Your task to perform on an android device: turn off priority inbox in the gmail app Image 0: 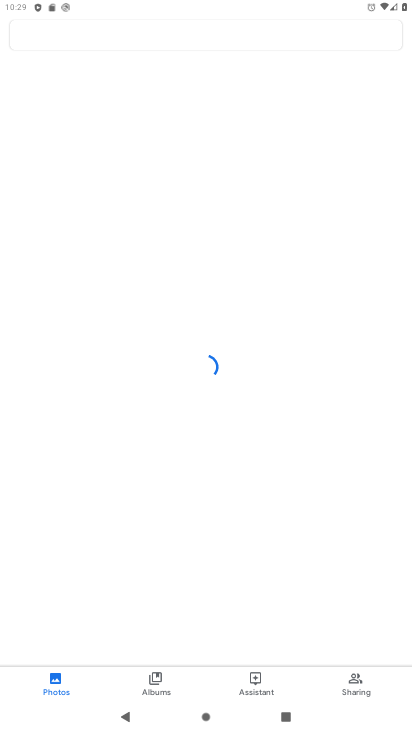
Step 0: press home button
Your task to perform on an android device: turn off priority inbox in the gmail app Image 1: 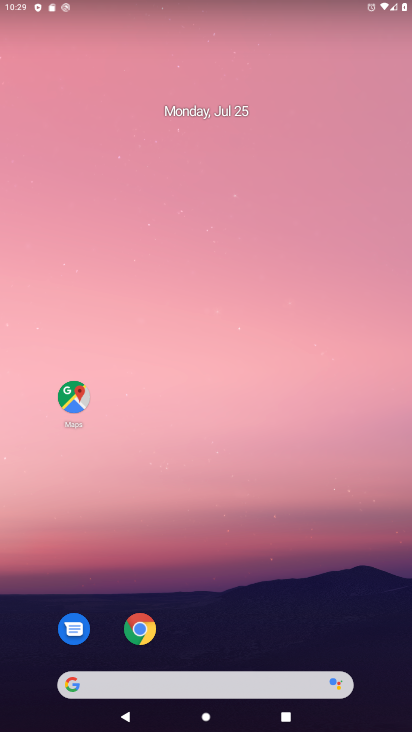
Step 1: drag from (271, 636) to (277, 154)
Your task to perform on an android device: turn off priority inbox in the gmail app Image 2: 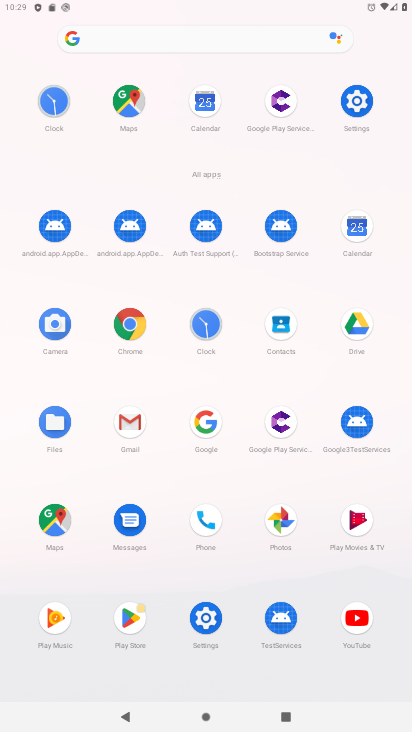
Step 2: click (126, 428)
Your task to perform on an android device: turn off priority inbox in the gmail app Image 3: 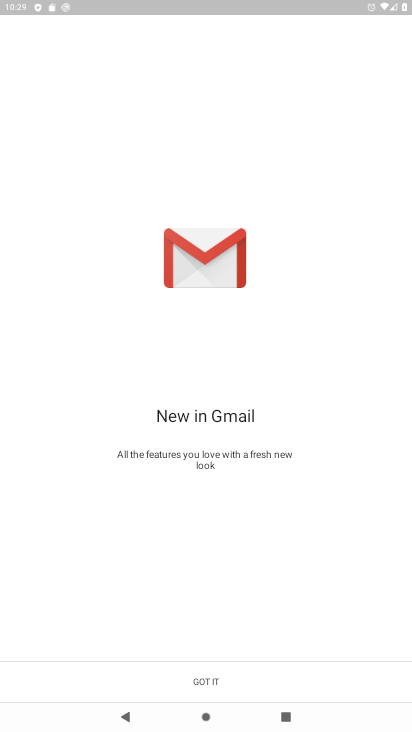
Step 3: click (250, 675)
Your task to perform on an android device: turn off priority inbox in the gmail app Image 4: 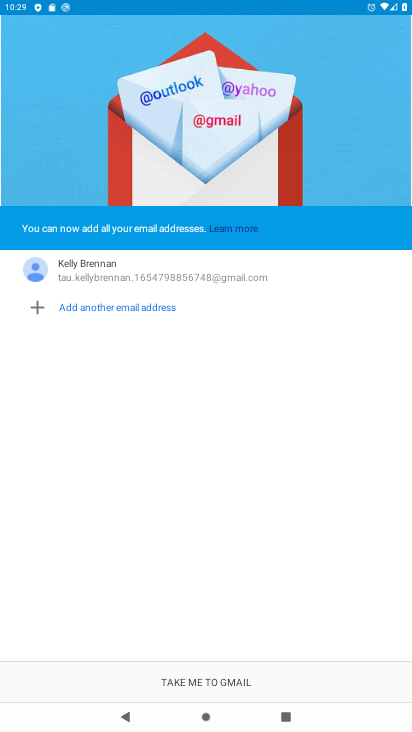
Step 4: click (250, 675)
Your task to perform on an android device: turn off priority inbox in the gmail app Image 5: 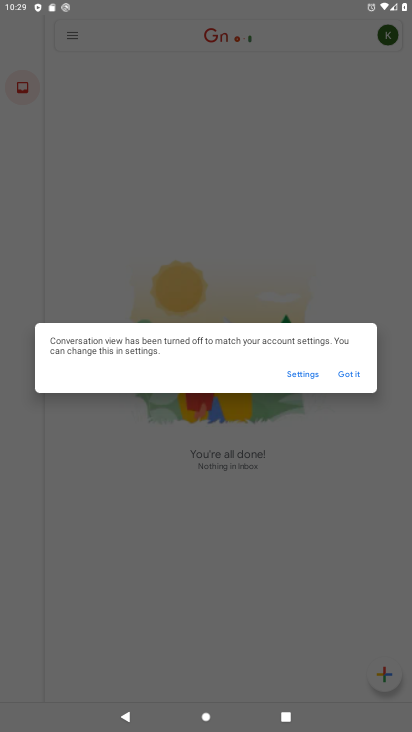
Step 5: click (351, 373)
Your task to perform on an android device: turn off priority inbox in the gmail app Image 6: 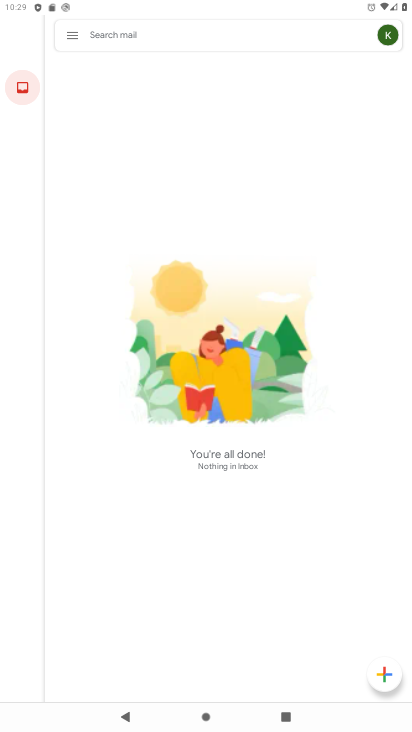
Step 6: click (69, 37)
Your task to perform on an android device: turn off priority inbox in the gmail app Image 7: 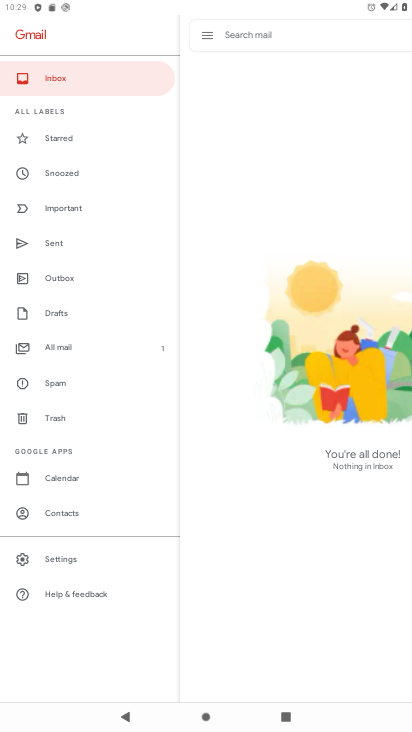
Step 7: click (73, 562)
Your task to perform on an android device: turn off priority inbox in the gmail app Image 8: 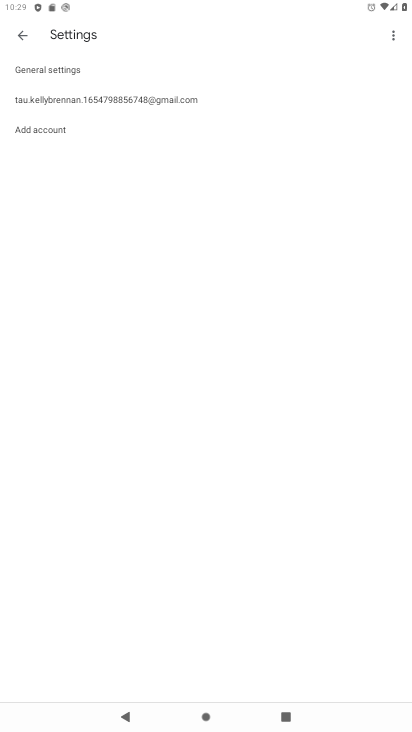
Step 8: click (48, 103)
Your task to perform on an android device: turn off priority inbox in the gmail app Image 9: 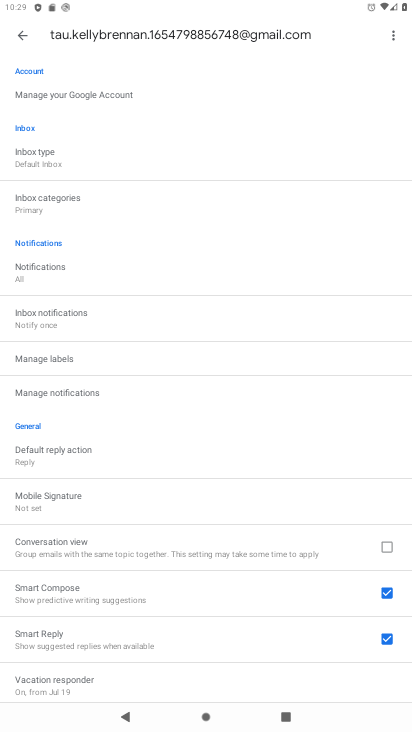
Step 9: click (51, 159)
Your task to perform on an android device: turn off priority inbox in the gmail app Image 10: 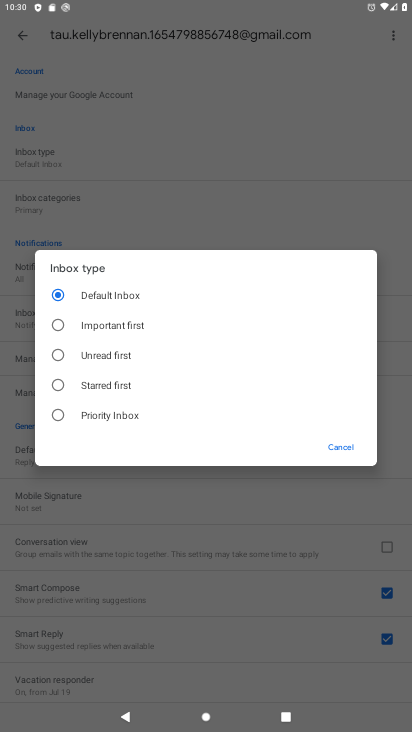
Step 10: click (90, 284)
Your task to perform on an android device: turn off priority inbox in the gmail app Image 11: 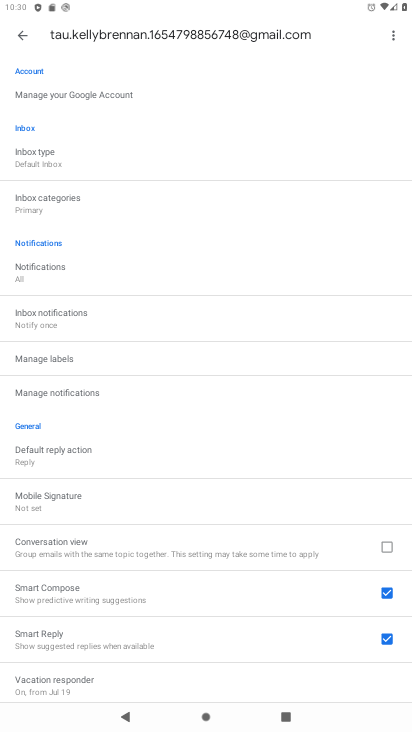
Step 11: task complete